Your task to perform on an android device: Open calendar and show me the second week of next month Image 0: 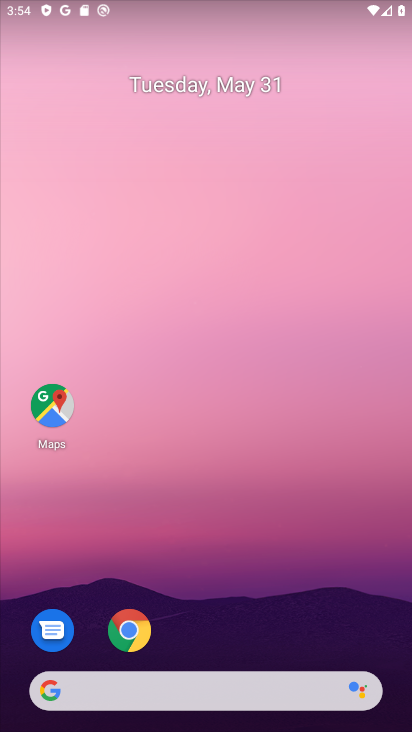
Step 0: drag from (277, 507) to (184, 23)
Your task to perform on an android device: Open calendar and show me the second week of next month Image 1: 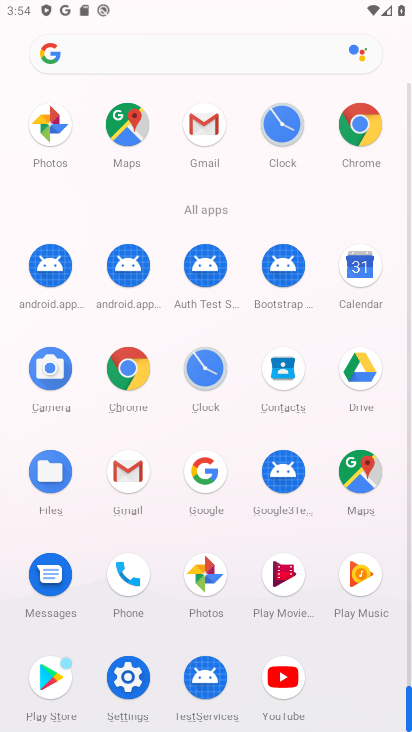
Step 1: drag from (2, 571) to (10, 262)
Your task to perform on an android device: Open calendar and show me the second week of next month Image 2: 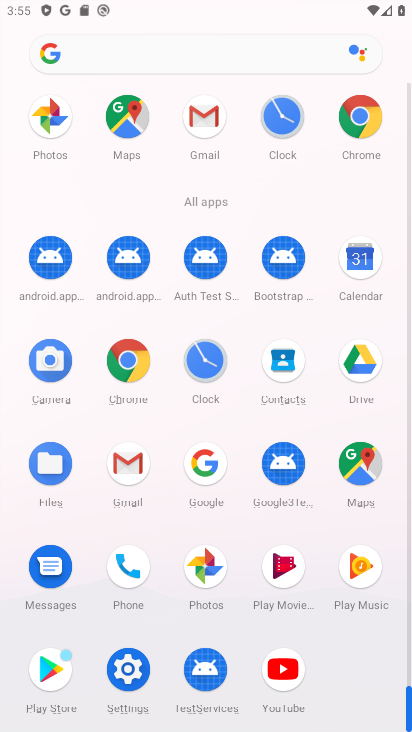
Step 2: click (358, 248)
Your task to perform on an android device: Open calendar and show me the second week of next month Image 3: 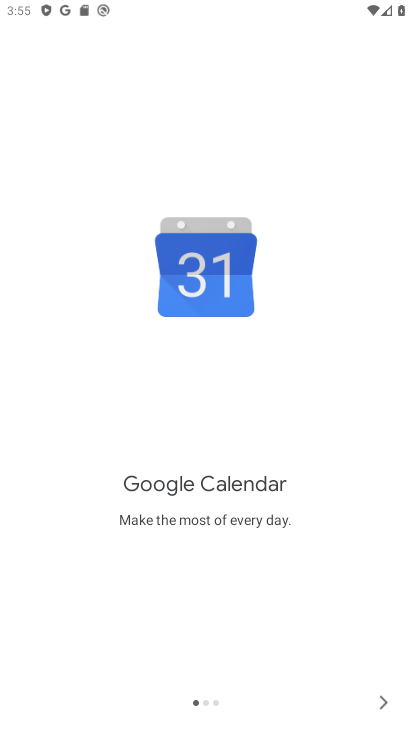
Step 3: click (383, 699)
Your task to perform on an android device: Open calendar and show me the second week of next month Image 4: 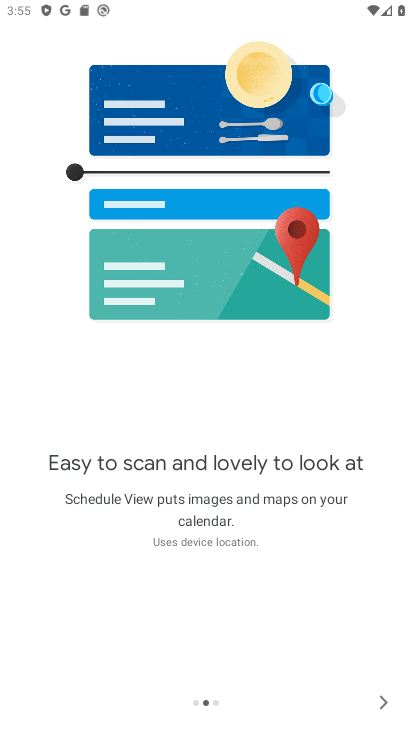
Step 4: click (385, 689)
Your task to perform on an android device: Open calendar and show me the second week of next month Image 5: 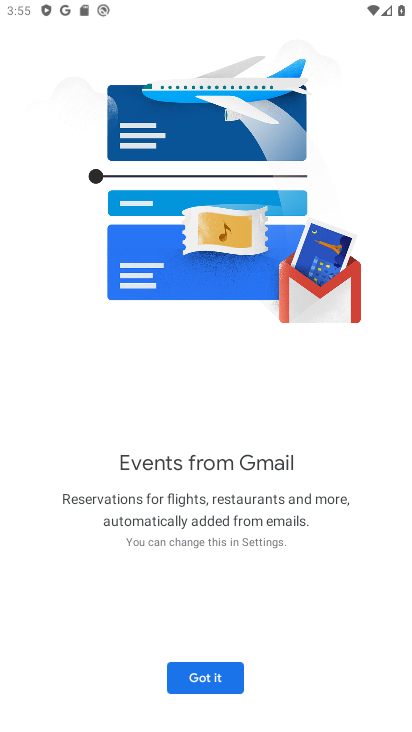
Step 5: click (191, 663)
Your task to perform on an android device: Open calendar and show me the second week of next month Image 6: 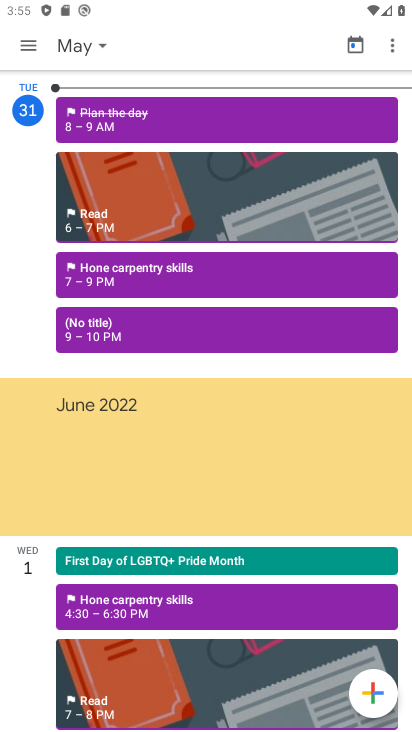
Step 6: click (62, 41)
Your task to perform on an android device: Open calendar and show me the second week of next month Image 7: 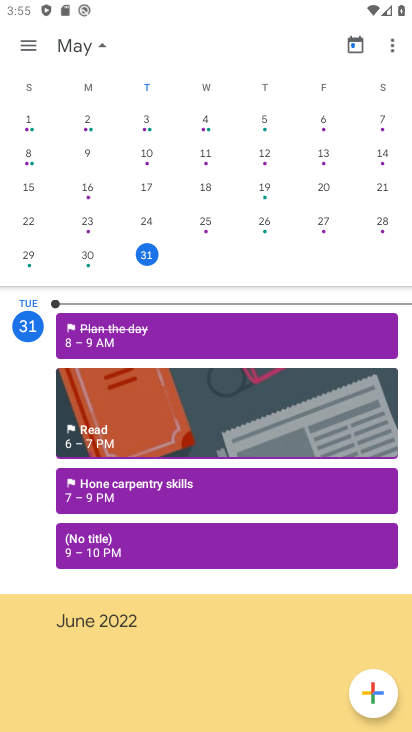
Step 7: drag from (383, 149) to (4, 141)
Your task to perform on an android device: Open calendar and show me the second week of next month Image 8: 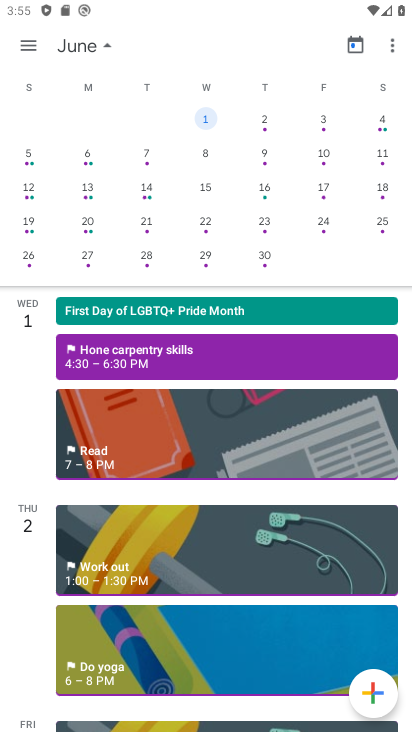
Step 8: click (28, 156)
Your task to perform on an android device: Open calendar and show me the second week of next month Image 9: 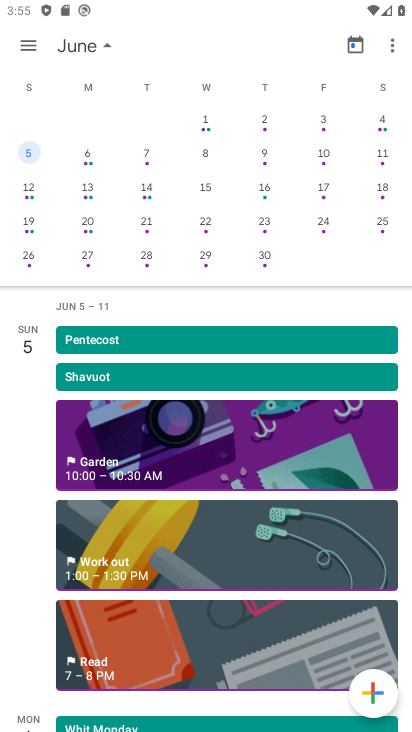
Step 9: click (25, 47)
Your task to perform on an android device: Open calendar and show me the second week of next month Image 10: 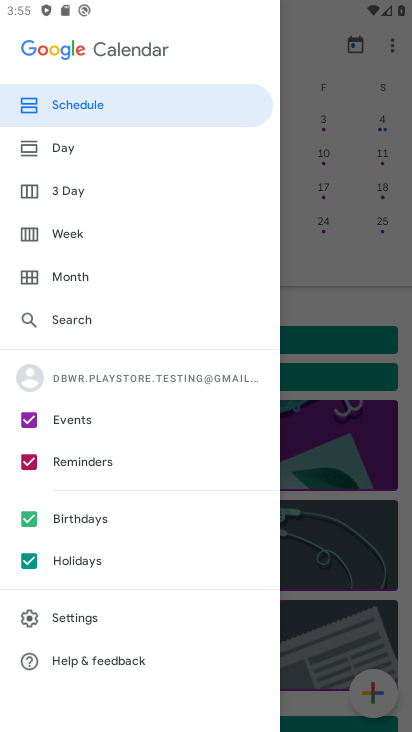
Step 10: click (69, 241)
Your task to perform on an android device: Open calendar and show me the second week of next month Image 11: 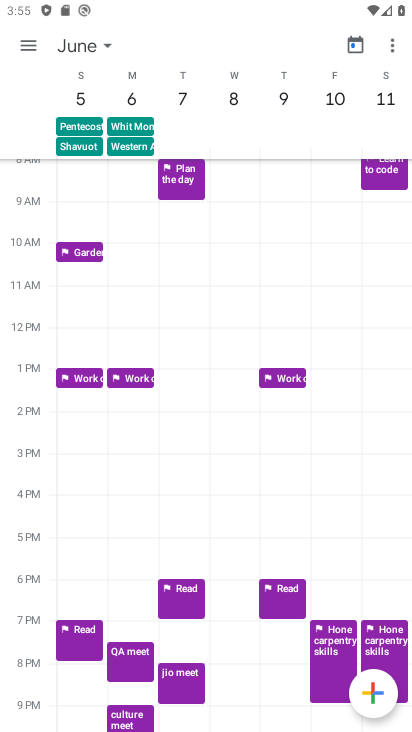
Step 11: task complete